Your task to perform on an android device: refresh tabs in the chrome app Image 0: 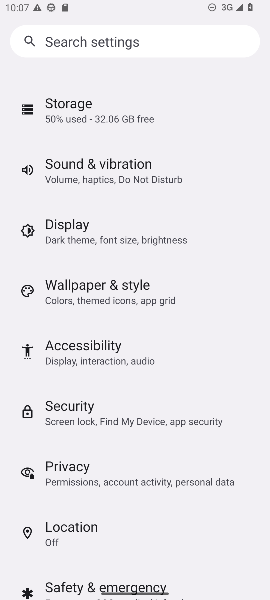
Step 0: press home button
Your task to perform on an android device: refresh tabs in the chrome app Image 1: 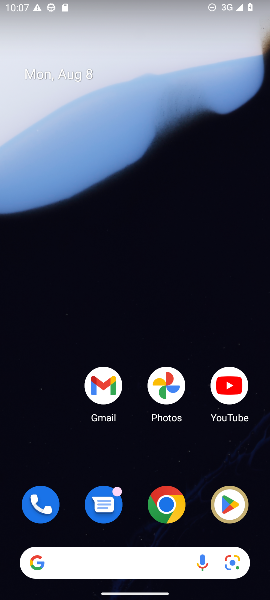
Step 1: click (162, 498)
Your task to perform on an android device: refresh tabs in the chrome app Image 2: 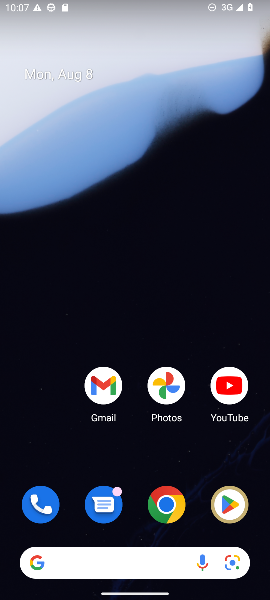
Step 2: click (170, 517)
Your task to perform on an android device: refresh tabs in the chrome app Image 3: 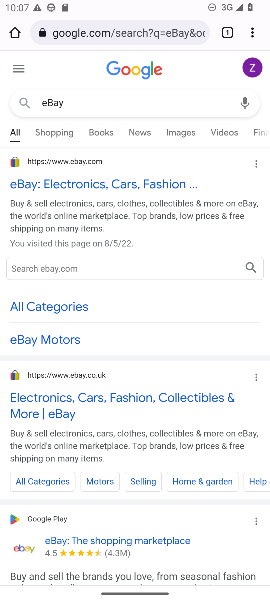
Step 3: click (257, 27)
Your task to perform on an android device: refresh tabs in the chrome app Image 4: 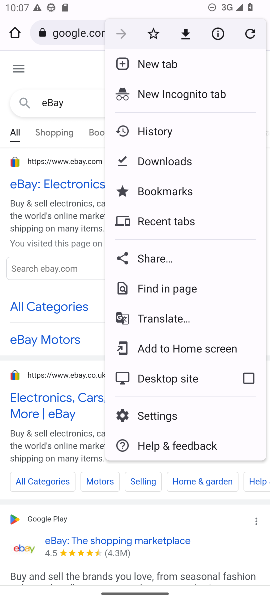
Step 4: click (252, 34)
Your task to perform on an android device: refresh tabs in the chrome app Image 5: 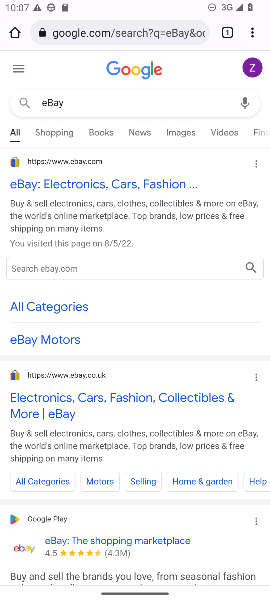
Step 5: task complete